Your task to perform on an android device: Do I have any events today? Image 0: 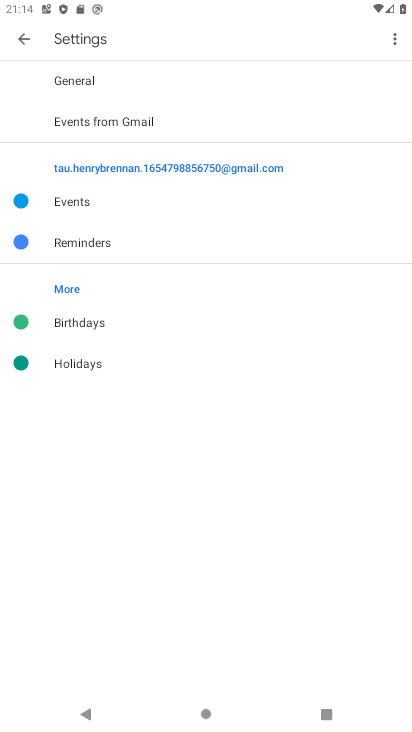
Step 0: press home button
Your task to perform on an android device: Do I have any events today? Image 1: 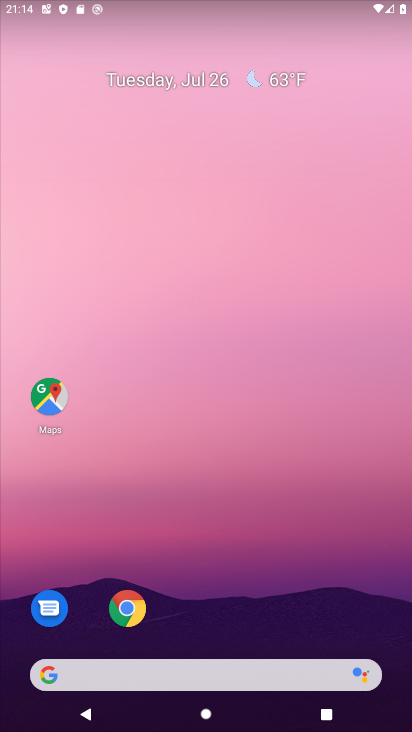
Step 1: click (103, 658)
Your task to perform on an android device: Do I have any events today? Image 2: 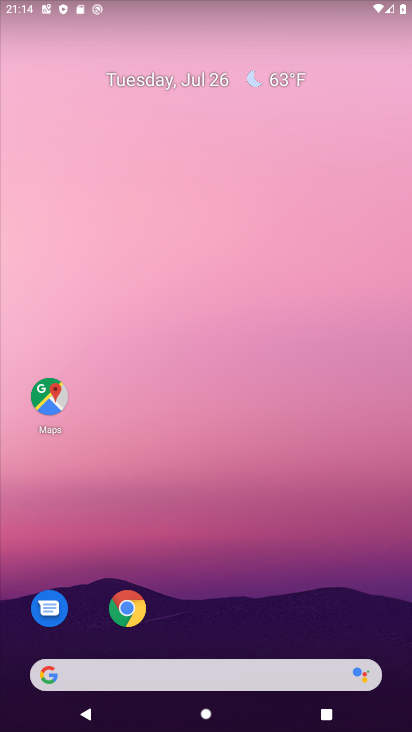
Step 2: click (94, 681)
Your task to perform on an android device: Do I have any events today? Image 3: 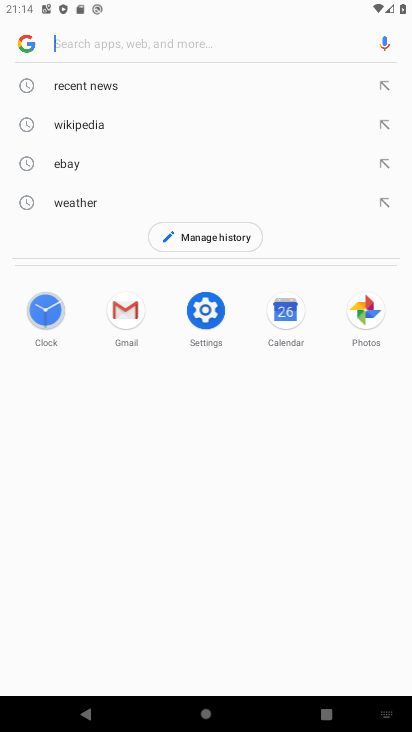
Step 3: click (79, 674)
Your task to perform on an android device: Do I have any events today? Image 4: 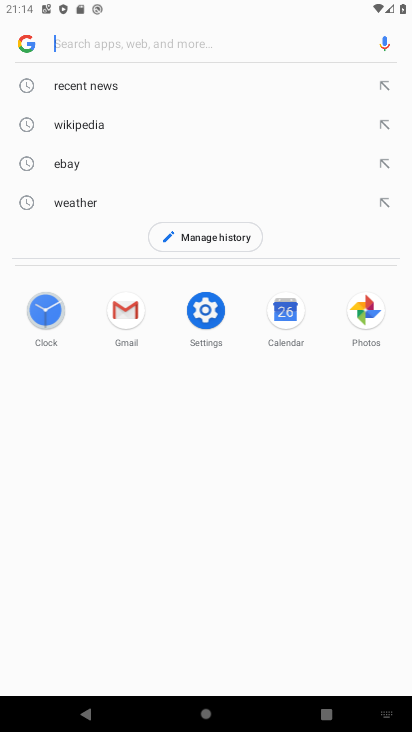
Step 4: press home button
Your task to perform on an android device: Do I have any events today? Image 5: 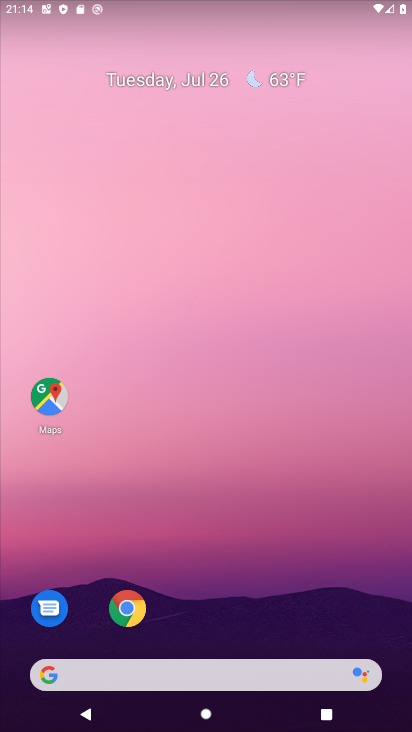
Step 5: drag from (37, 647) to (145, 23)
Your task to perform on an android device: Do I have any events today? Image 6: 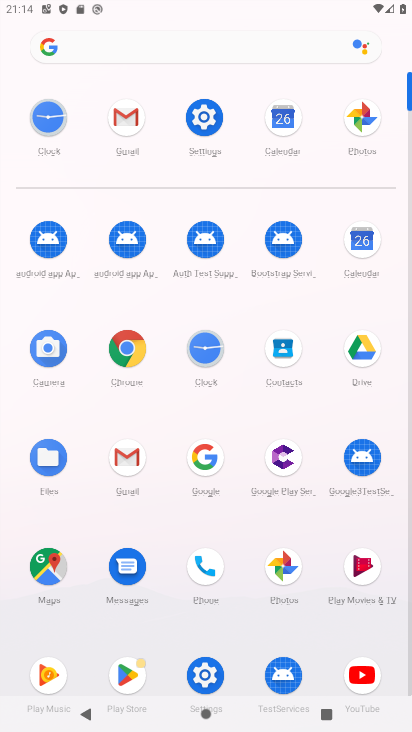
Step 6: click (328, 228)
Your task to perform on an android device: Do I have any events today? Image 7: 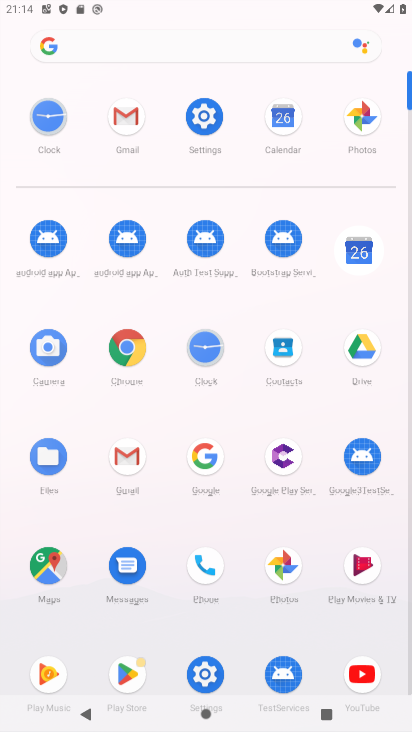
Step 7: click (359, 243)
Your task to perform on an android device: Do I have any events today? Image 8: 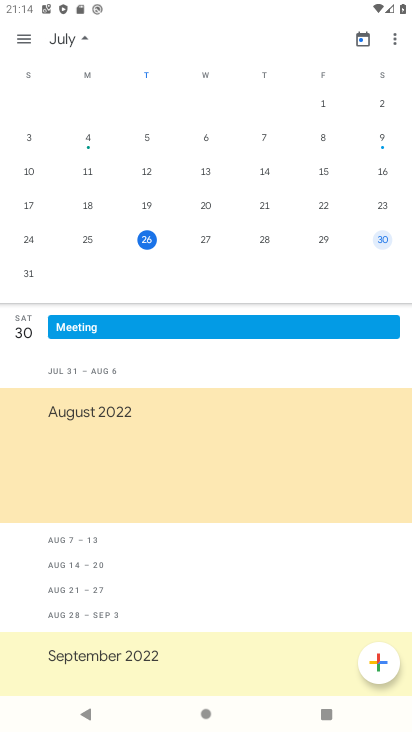
Step 8: task complete